Your task to perform on an android device: Search for pizza restaurants on Maps Image 0: 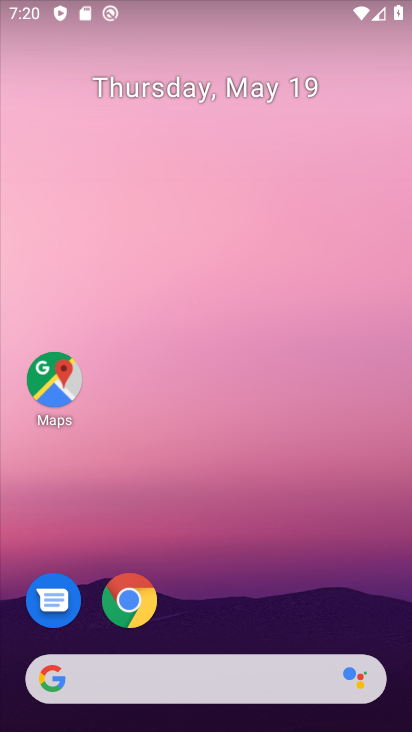
Step 0: drag from (338, 614) to (362, 233)
Your task to perform on an android device: Search for pizza restaurants on Maps Image 1: 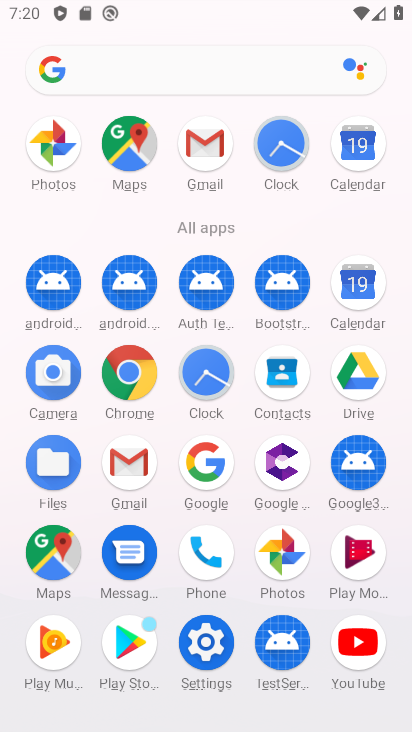
Step 1: click (45, 547)
Your task to perform on an android device: Search for pizza restaurants on Maps Image 2: 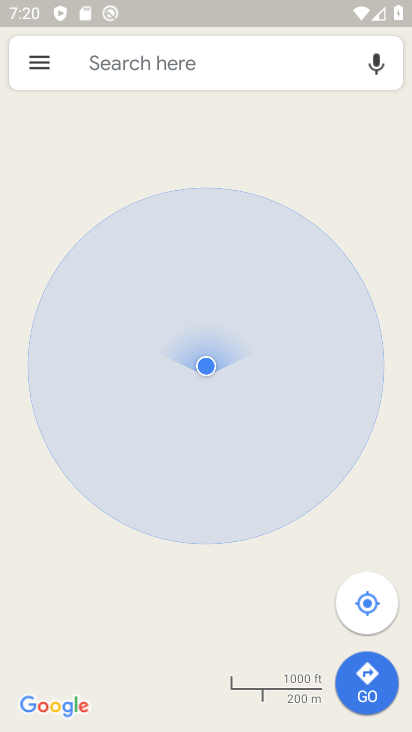
Step 2: click (144, 62)
Your task to perform on an android device: Search for pizza restaurants on Maps Image 3: 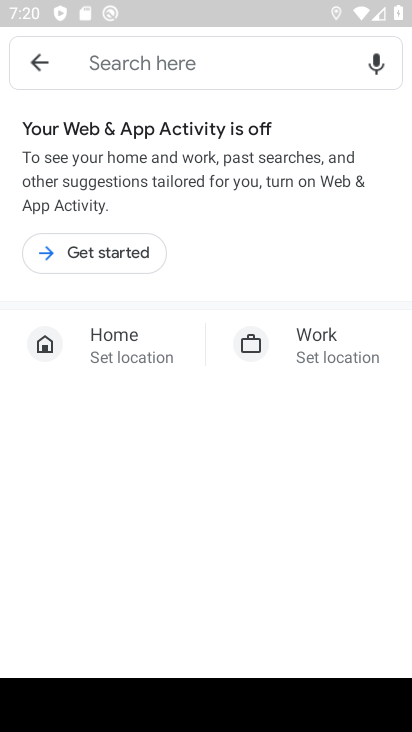
Step 3: type "pizza restaurants "
Your task to perform on an android device: Search for pizza restaurants on Maps Image 4: 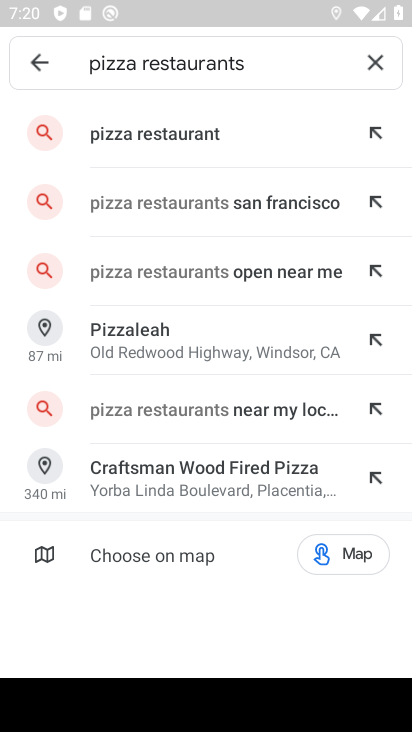
Step 4: click (197, 128)
Your task to perform on an android device: Search for pizza restaurants on Maps Image 5: 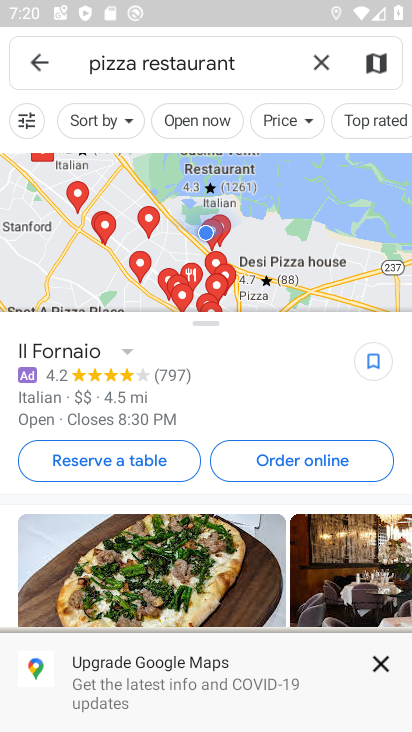
Step 5: task complete